Your task to perform on an android device: Clear the shopping cart on costco.com. Search for dell alienware on costco.com, select the first entry, and add it to the cart. Image 0: 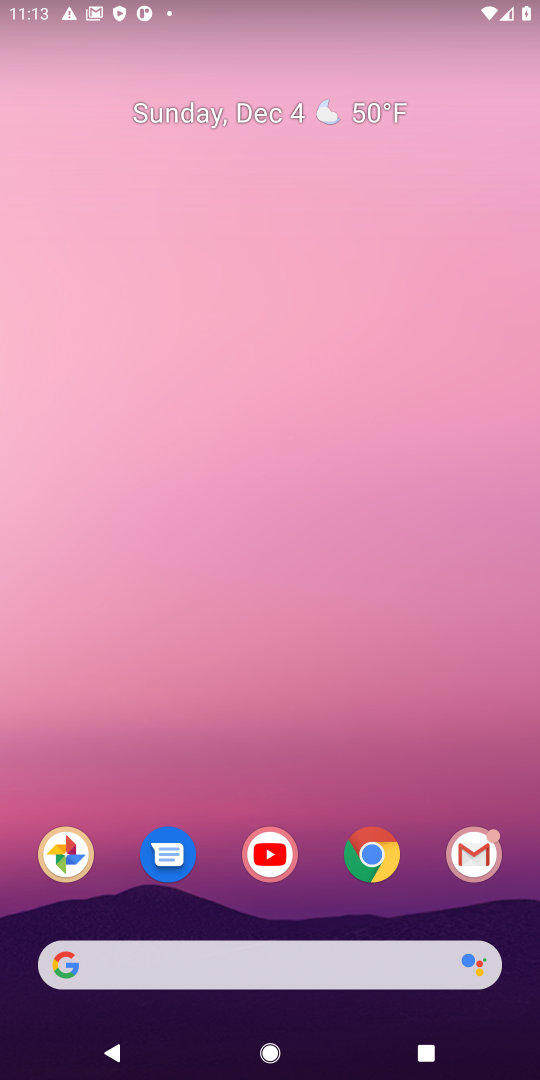
Step 0: click (297, 950)
Your task to perform on an android device: Clear the shopping cart on costco.com. Search for dell alienware on costco.com, select the first entry, and add it to the cart. Image 1: 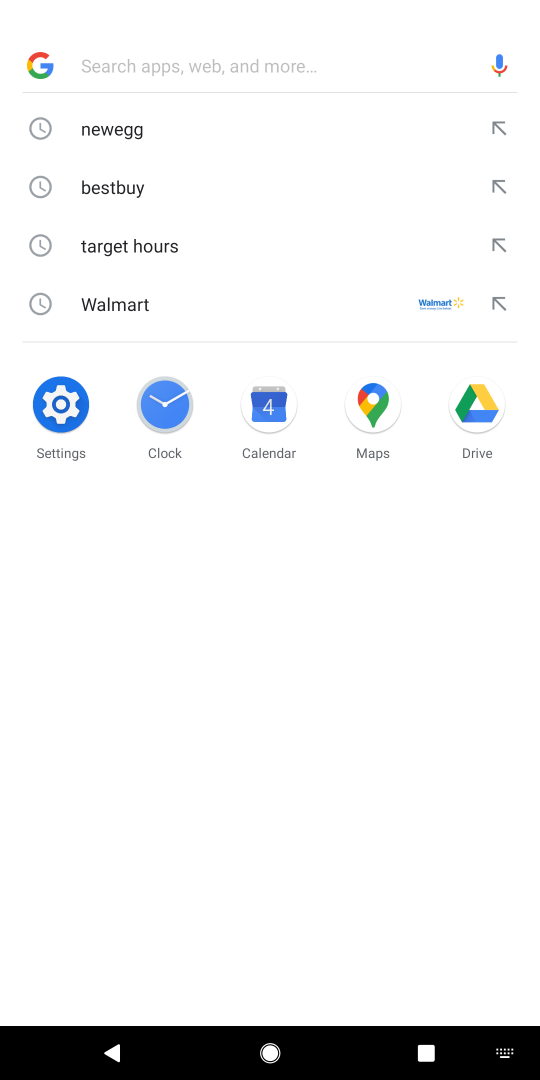
Step 1: type "costco"
Your task to perform on an android device: Clear the shopping cart on costco.com. Search for dell alienware on costco.com, select the first entry, and add it to the cart. Image 2: 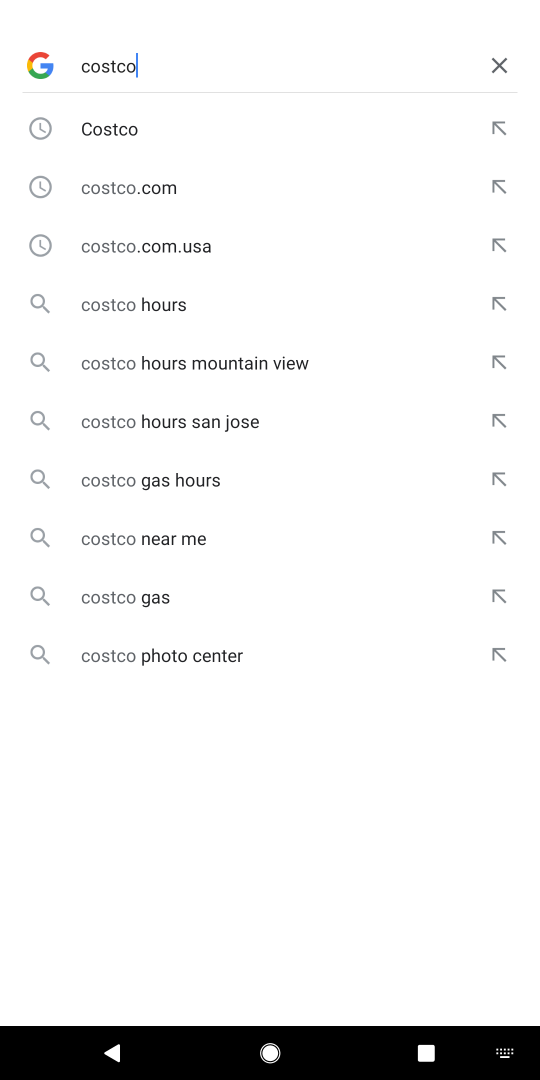
Step 2: click (161, 197)
Your task to perform on an android device: Clear the shopping cart on costco.com. Search for dell alienware on costco.com, select the first entry, and add it to the cart. Image 3: 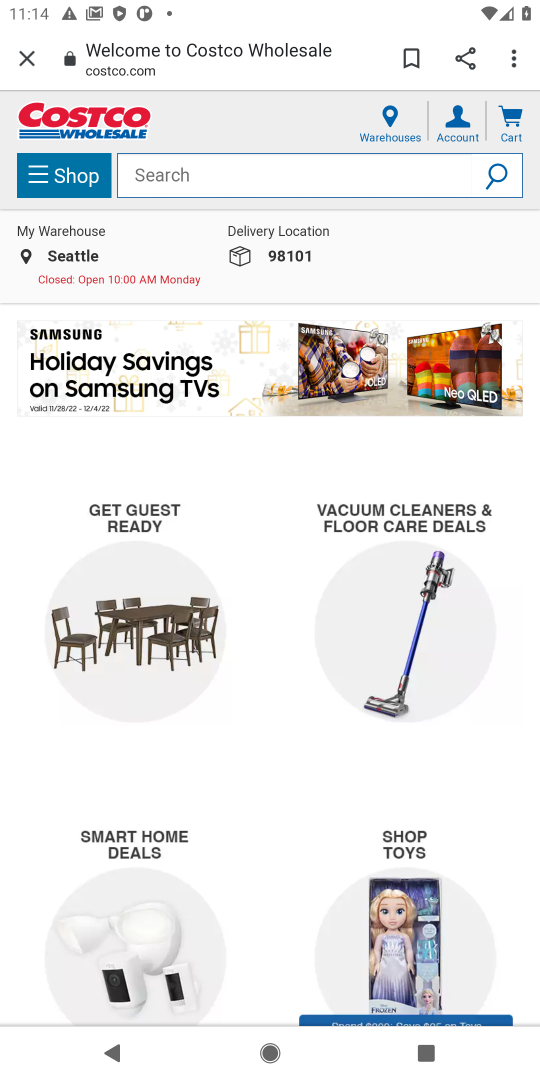
Step 3: click (354, 179)
Your task to perform on an android device: Clear the shopping cart on costco.com. Search for dell alienware on costco.com, select the first entry, and add it to the cart. Image 4: 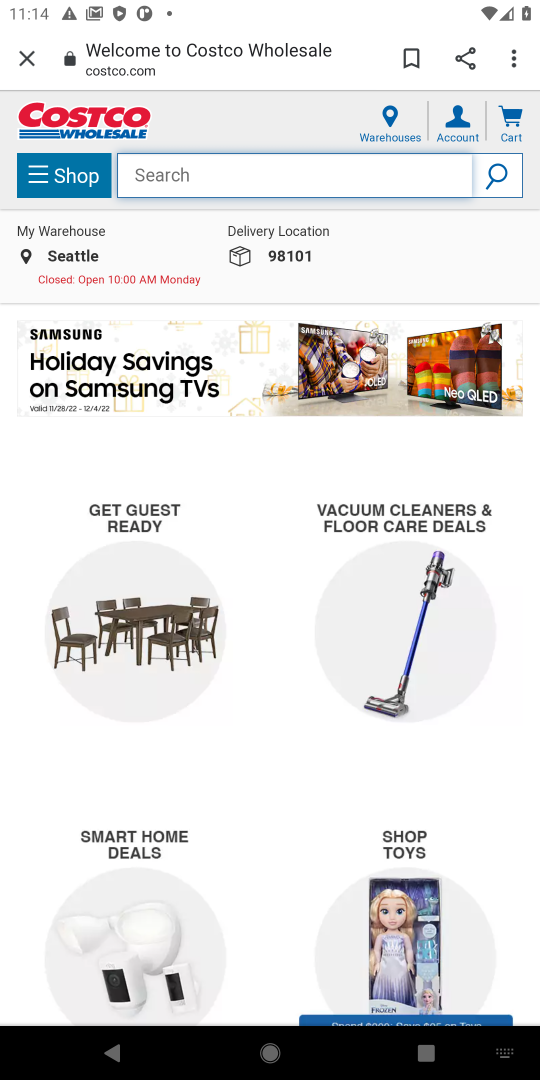
Step 4: type "dell alienware"
Your task to perform on an android device: Clear the shopping cart on costco.com. Search for dell alienware on costco.com, select the first entry, and add it to the cart. Image 5: 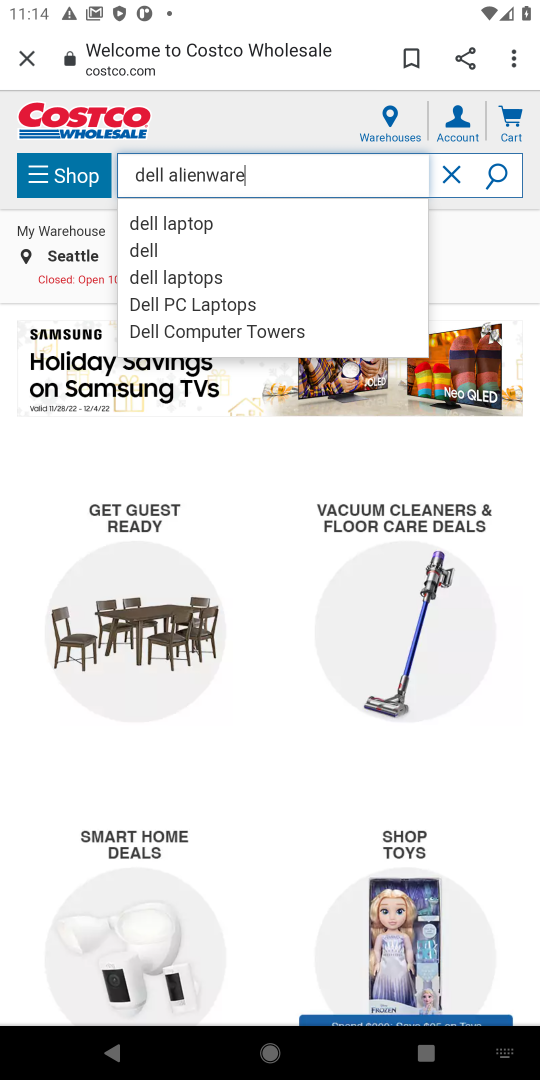
Step 5: click (486, 178)
Your task to perform on an android device: Clear the shopping cart on costco.com. Search for dell alienware on costco.com, select the first entry, and add it to the cart. Image 6: 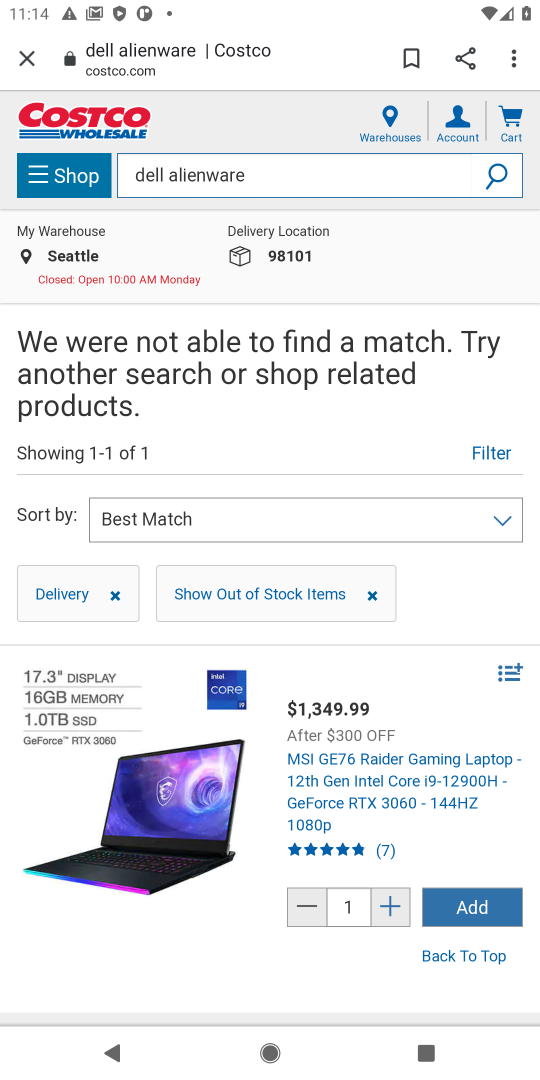
Step 6: click (478, 902)
Your task to perform on an android device: Clear the shopping cart on costco.com. Search for dell alienware on costco.com, select the first entry, and add it to the cart. Image 7: 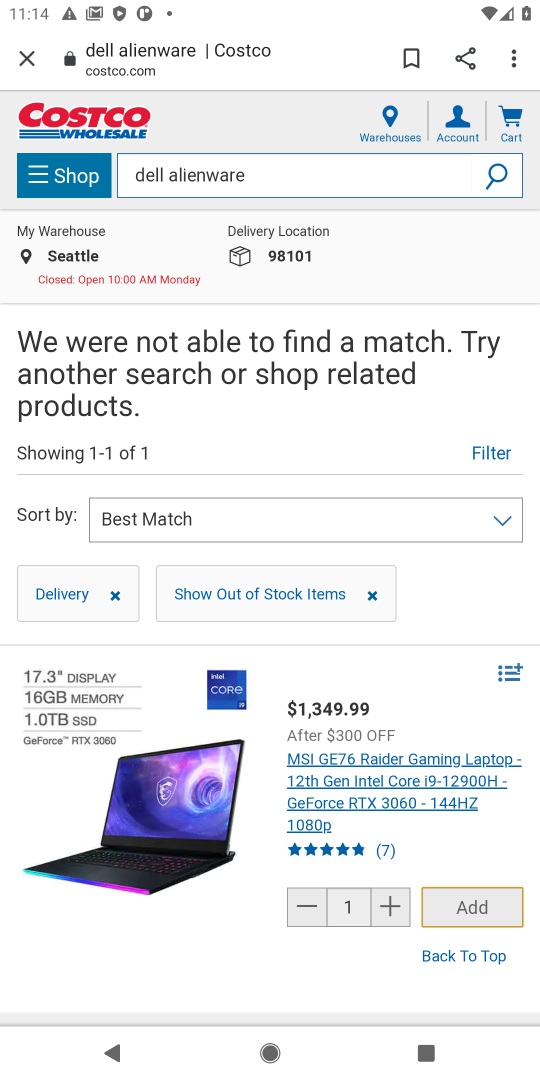
Step 7: task complete